Your task to perform on an android device: Open Reddit.com Image 0: 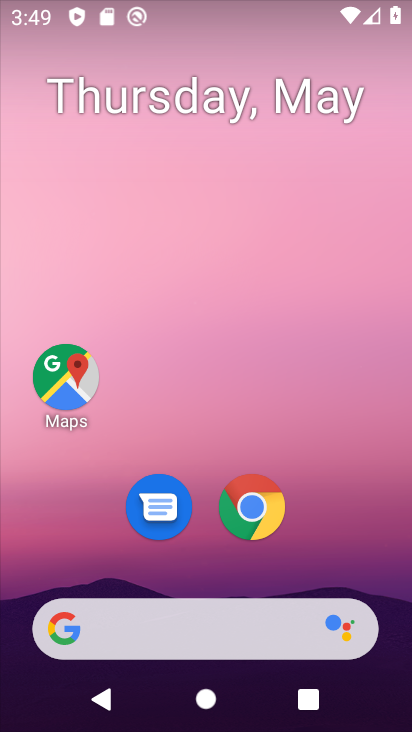
Step 0: click (250, 511)
Your task to perform on an android device: Open Reddit.com Image 1: 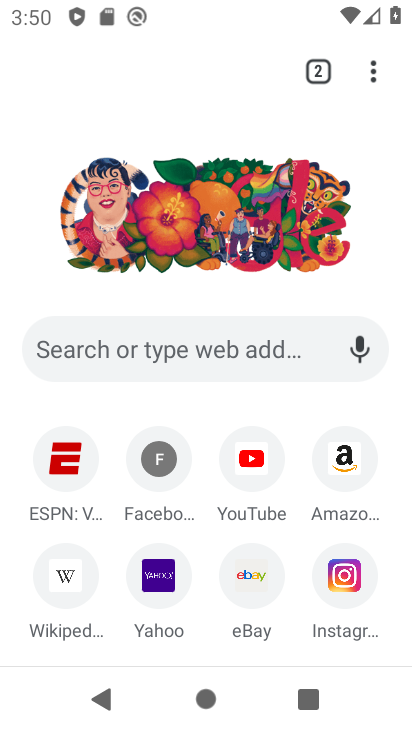
Step 1: click (221, 350)
Your task to perform on an android device: Open Reddit.com Image 2: 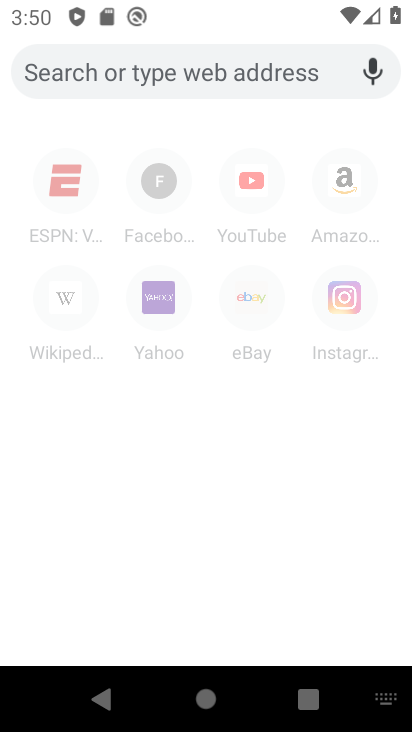
Step 2: type "reddit.com"
Your task to perform on an android device: Open Reddit.com Image 3: 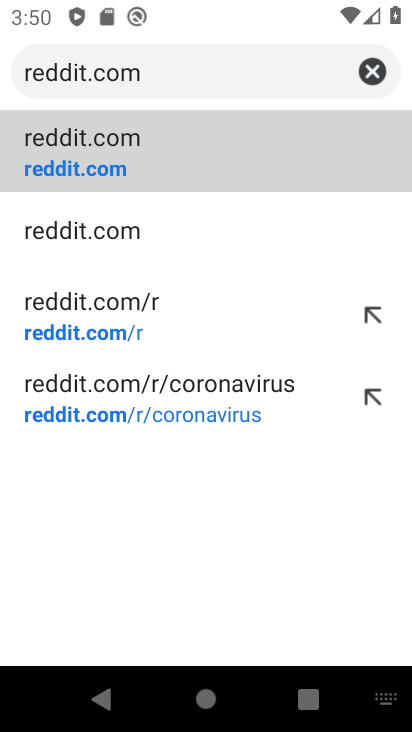
Step 3: click (47, 153)
Your task to perform on an android device: Open Reddit.com Image 4: 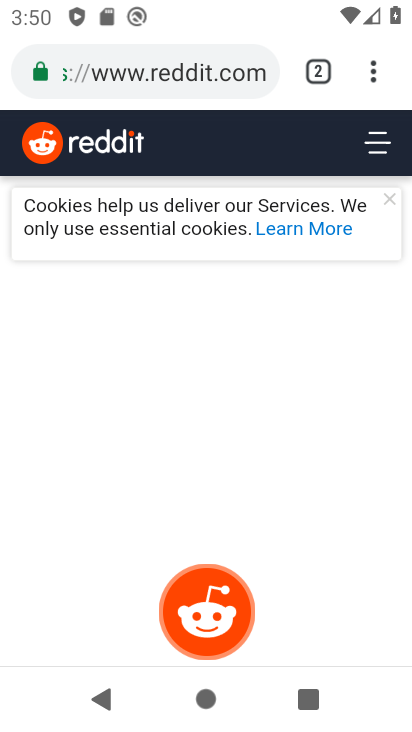
Step 4: task complete